Your task to perform on an android device: Turn on the flashlight Image 0: 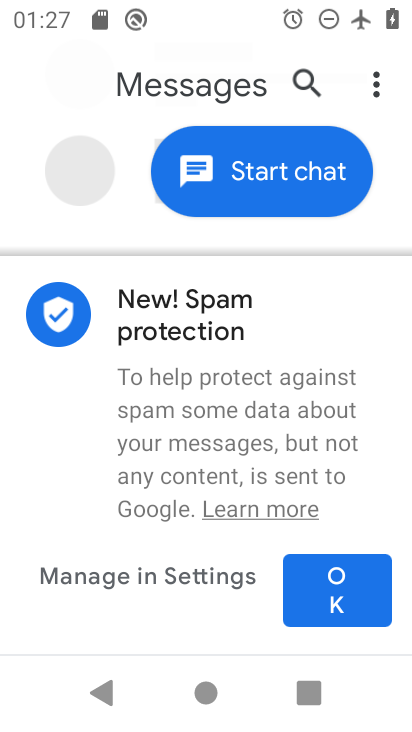
Step 0: press home button
Your task to perform on an android device: Turn on the flashlight Image 1: 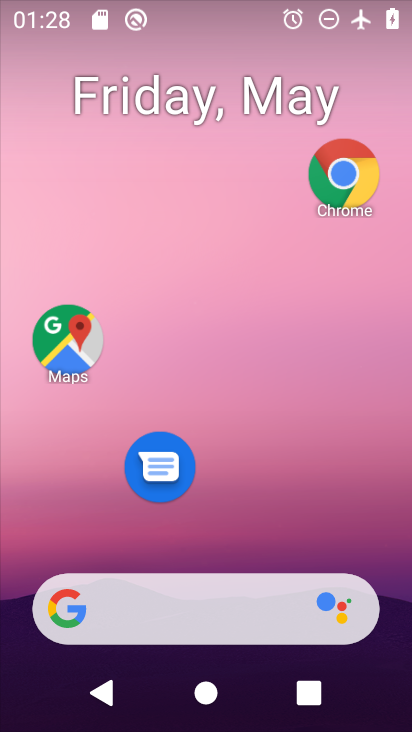
Step 1: drag from (348, 497) to (342, 104)
Your task to perform on an android device: Turn on the flashlight Image 2: 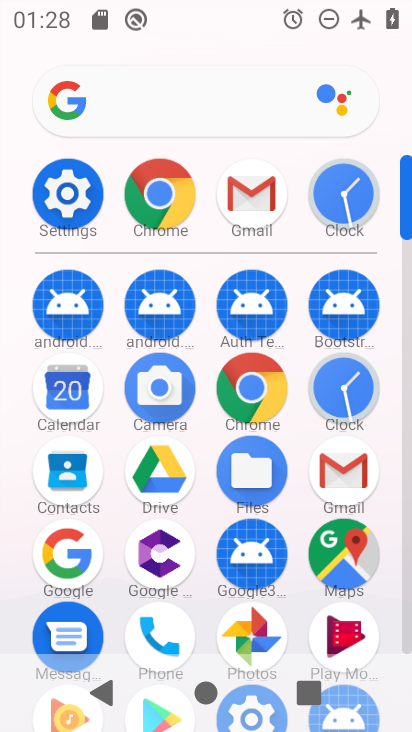
Step 2: click (66, 191)
Your task to perform on an android device: Turn on the flashlight Image 3: 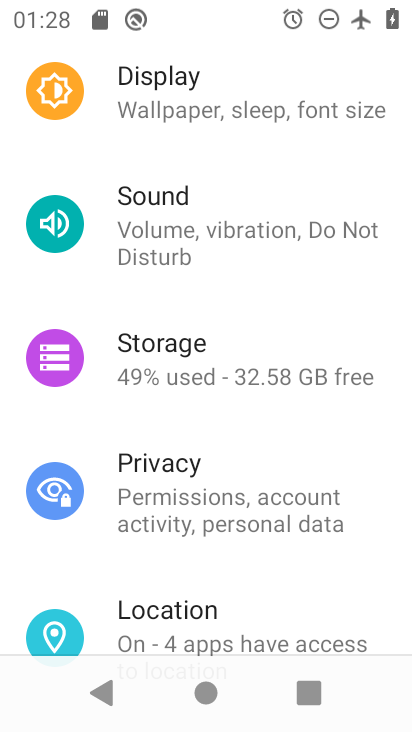
Step 3: task complete